Your task to perform on an android device: add a contact in the contacts app Image 0: 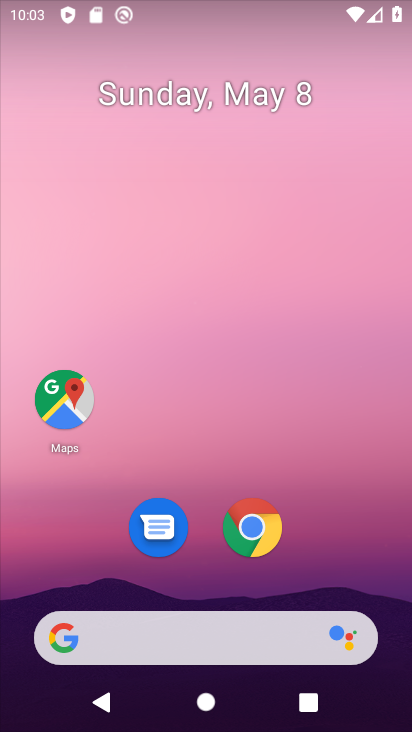
Step 0: drag from (341, 580) to (301, 161)
Your task to perform on an android device: add a contact in the contacts app Image 1: 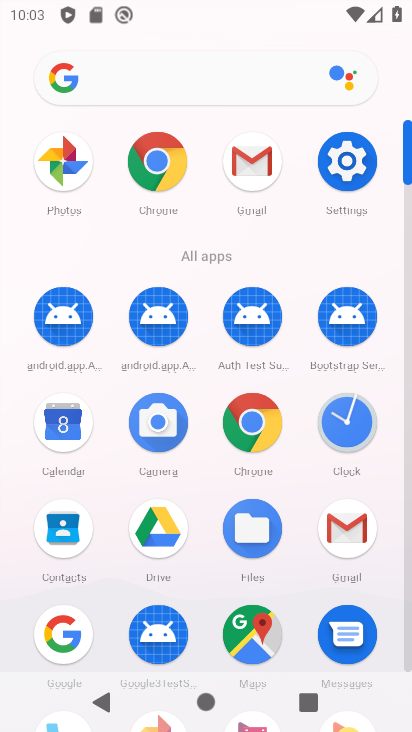
Step 1: drag from (305, 585) to (317, 219)
Your task to perform on an android device: add a contact in the contacts app Image 2: 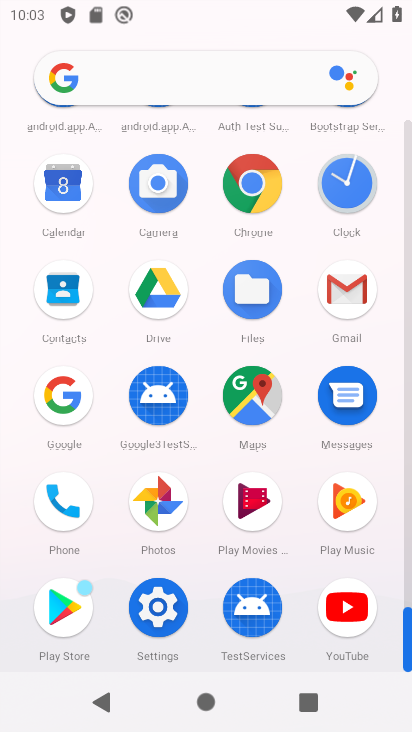
Step 2: click (70, 302)
Your task to perform on an android device: add a contact in the contacts app Image 3: 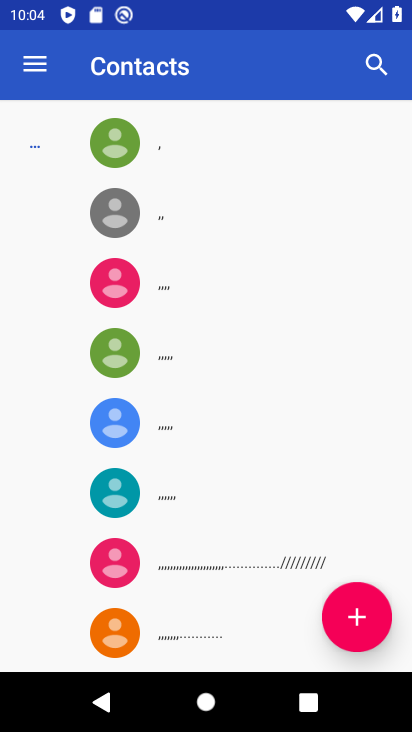
Step 3: click (364, 611)
Your task to perform on an android device: add a contact in the contacts app Image 4: 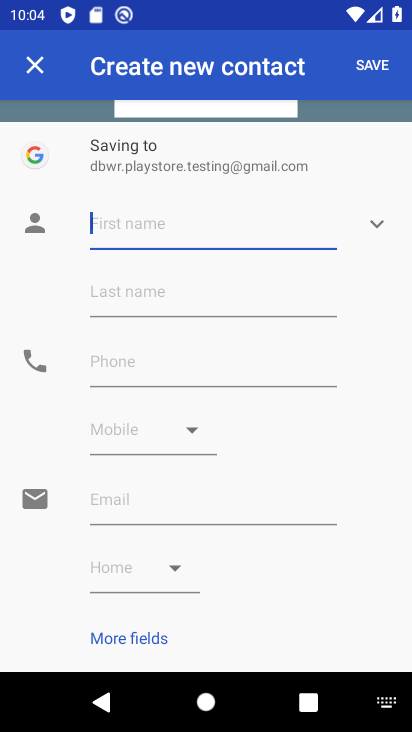
Step 4: click (152, 230)
Your task to perform on an android device: add a contact in the contacts app Image 5: 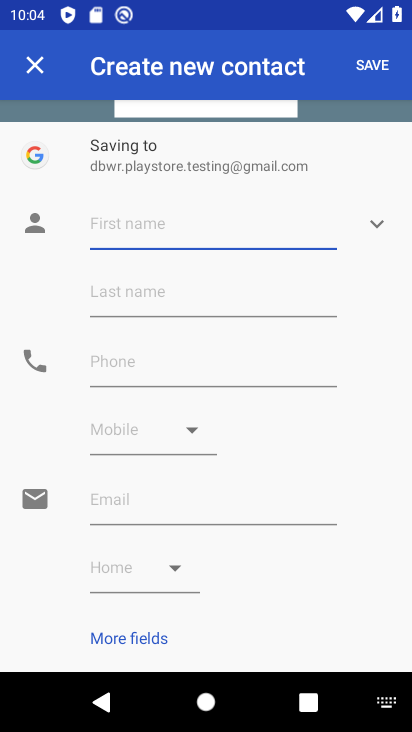
Step 5: type "sumin"
Your task to perform on an android device: add a contact in the contacts app Image 6: 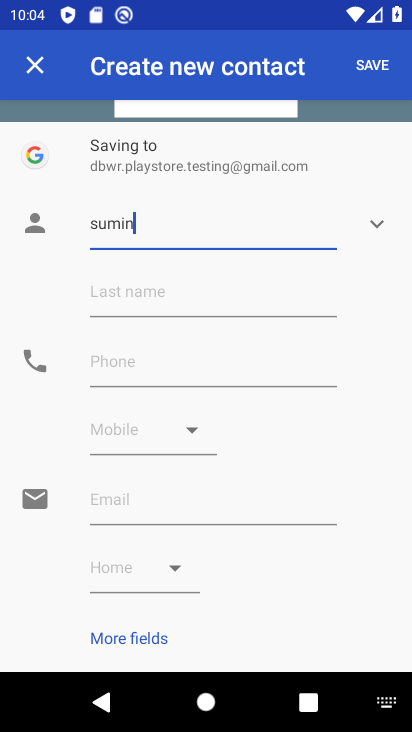
Step 6: click (167, 363)
Your task to perform on an android device: add a contact in the contacts app Image 7: 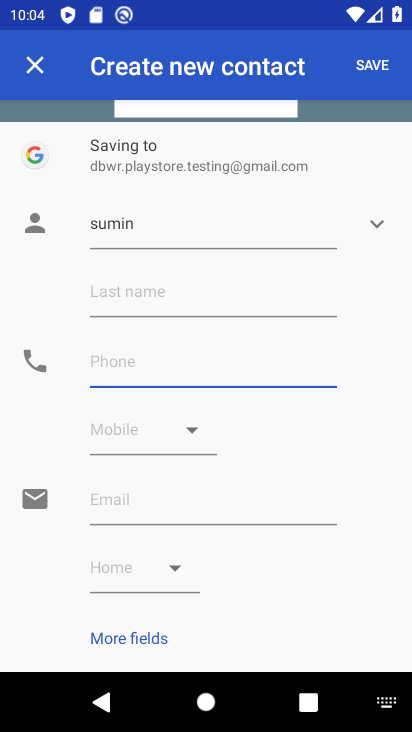
Step 7: type "557657645665"
Your task to perform on an android device: add a contact in the contacts app Image 8: 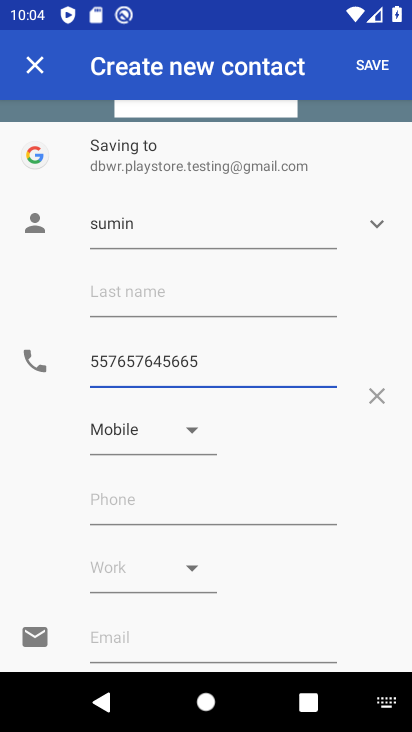
Step 8: click (361, 71)
Your task to perform on an android device: add a contact in the contacts app Image 9: 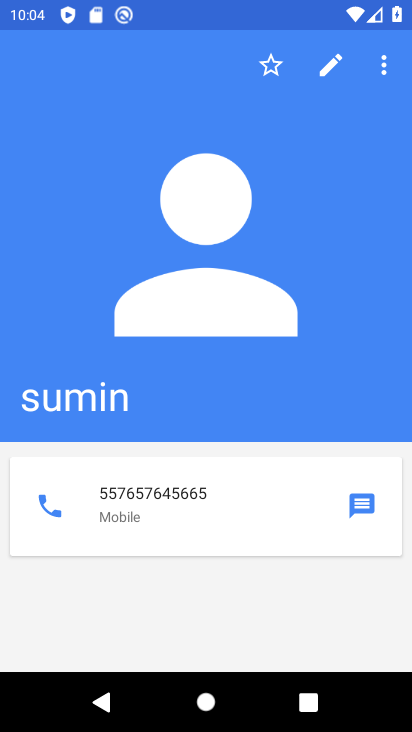
Step 9: task complete